Your task to perform on an android device: allow notifications from all sites in the chrome app Image 0: 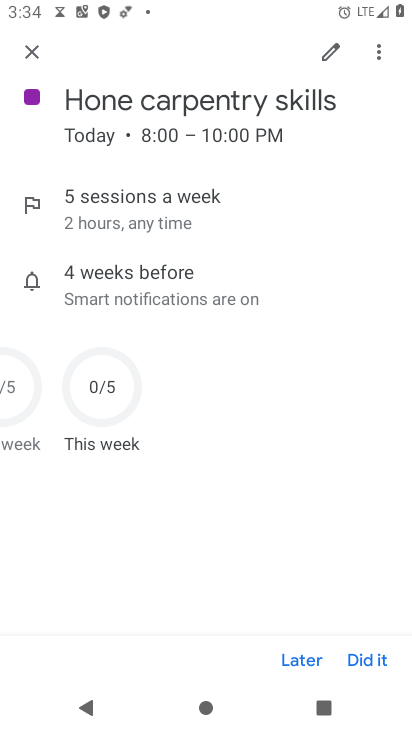
Step 0: press home button
Your task to perform on an android device: allow notifications from all sites in the chrome app Image 1: 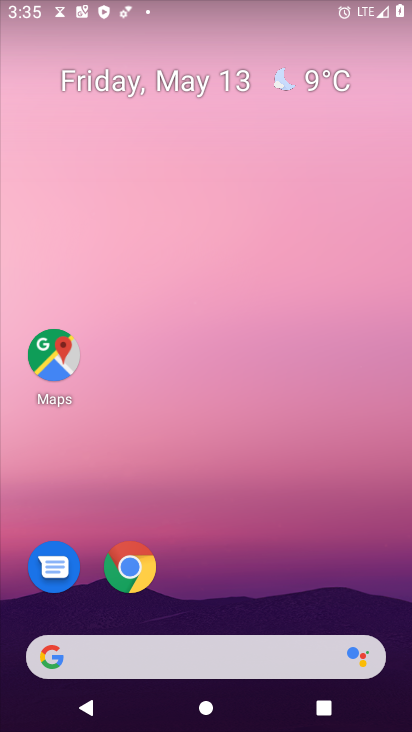
Step 1: click (137, 574)
Your task to perform on an android device: allow notifications from all sites in the chrome app Image 2: 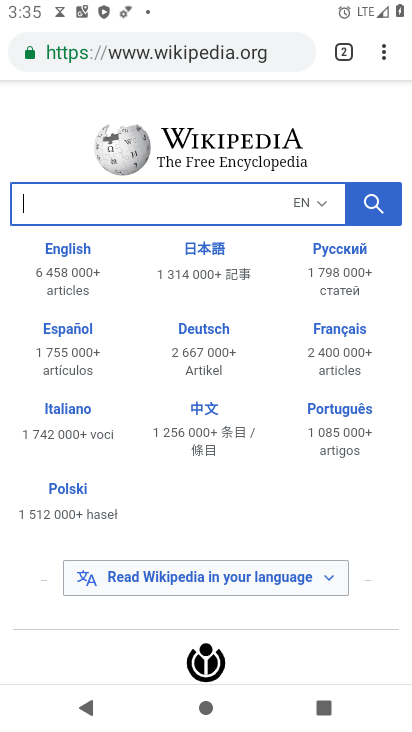
Step 2: drag from (383, 53) to (218, 621)
Your task to perform on an android device: allow notifications from all sites in the chrome app Image 3: 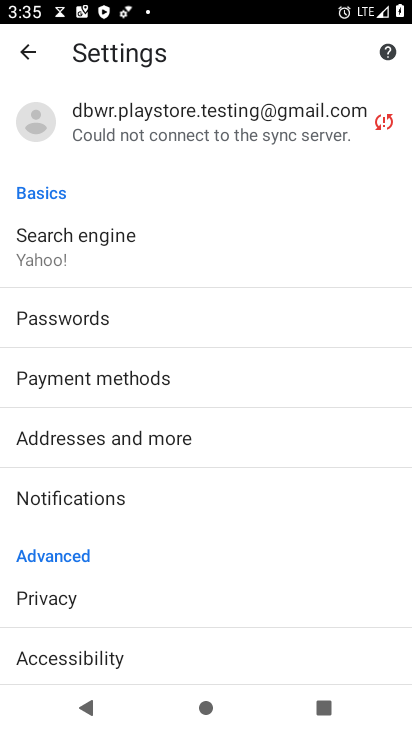
Step 3: drag from (221, 584) to (219, 351)
Your task to perform on an android device: allow notifications from all sites in the chrome app Image 4: 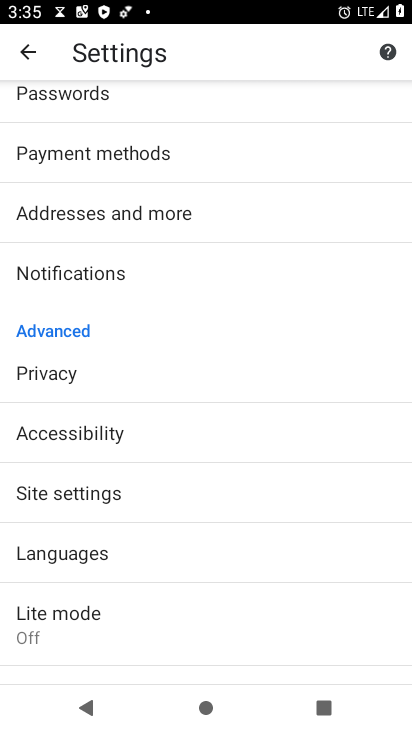
Step 4: click (87, 491)
Your task to perform on an android device: allow notifications from all sites in the chrome app Image 5: 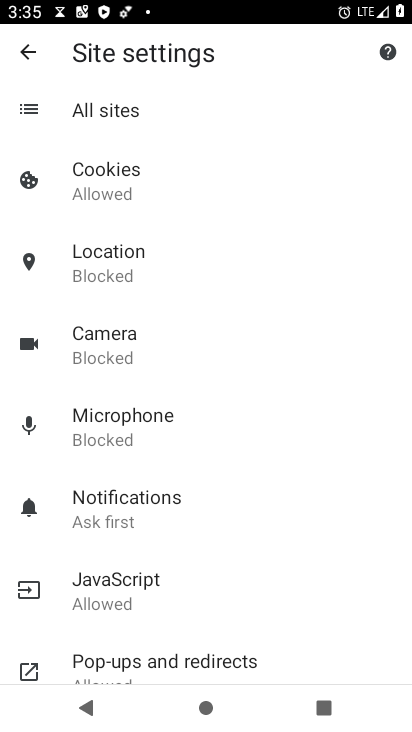
Step 5: click (121, 498)
Your task to perform on an android device: allow notifications from all sites in the chrome app Image 6: 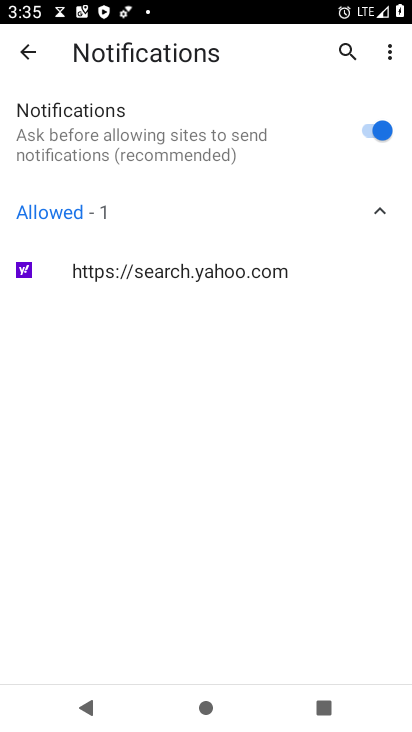
Step 6: task complete